Your task to perform on an android device: Toggle the flashlight Image 0: 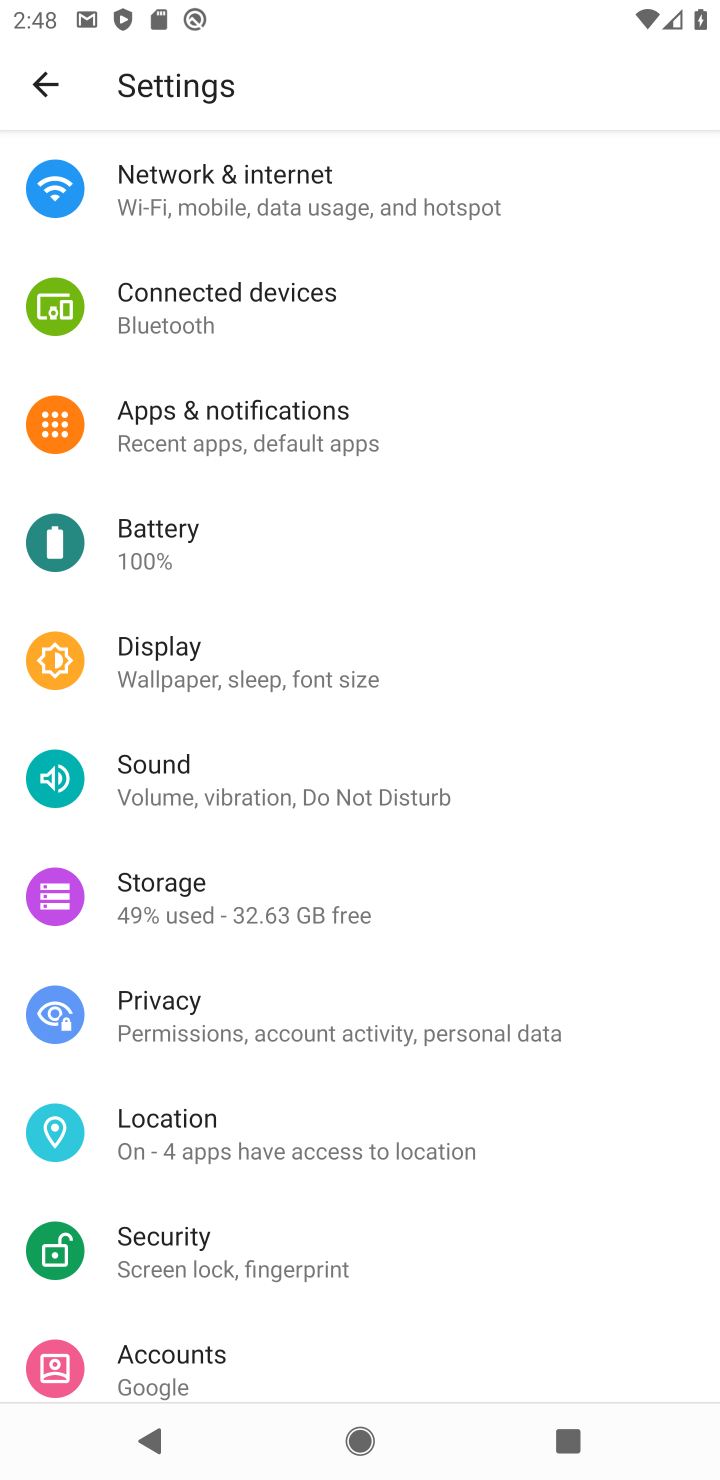
Step 0: press back button
Your task to perform on an android device: Toggle the flashlight Image 1: 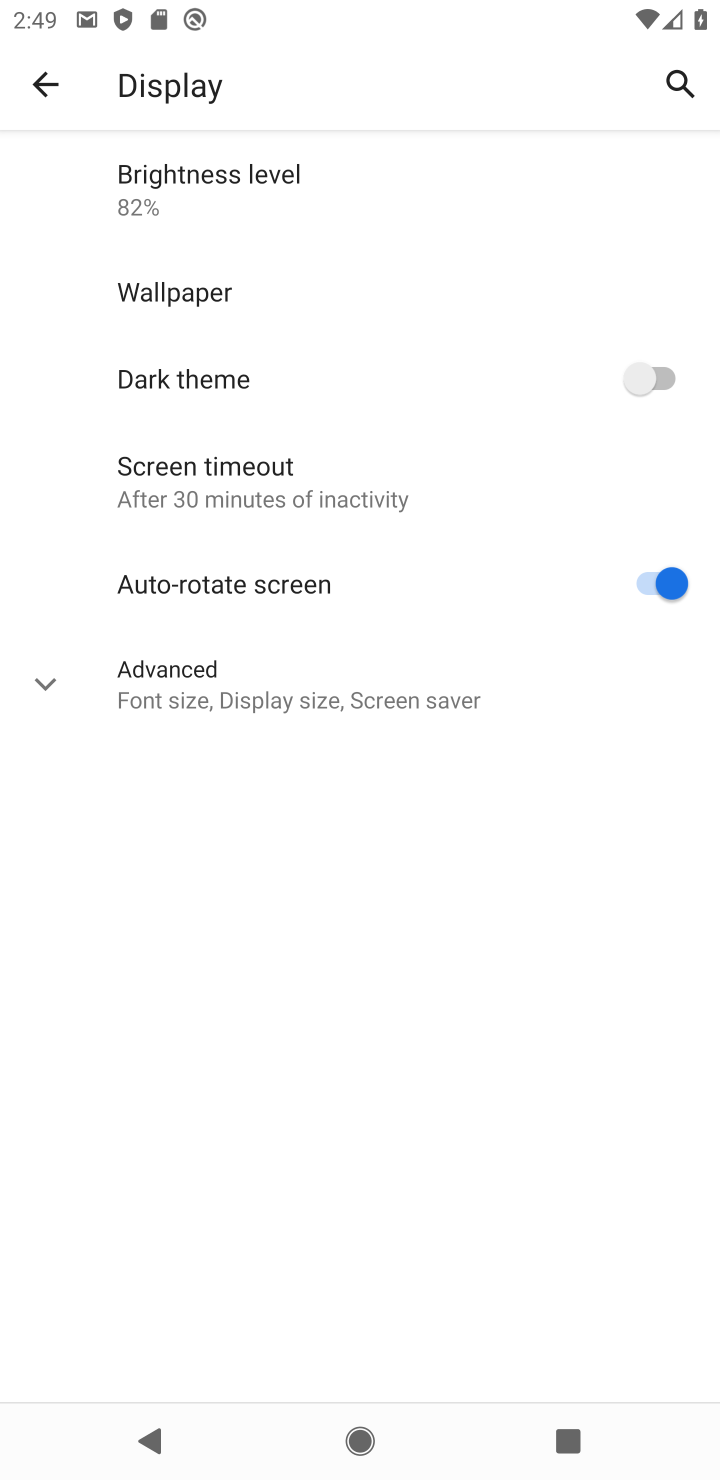
Step 1: click (42, 85)
Your task to perform on an android device: Toggle the flashlight Image 2: 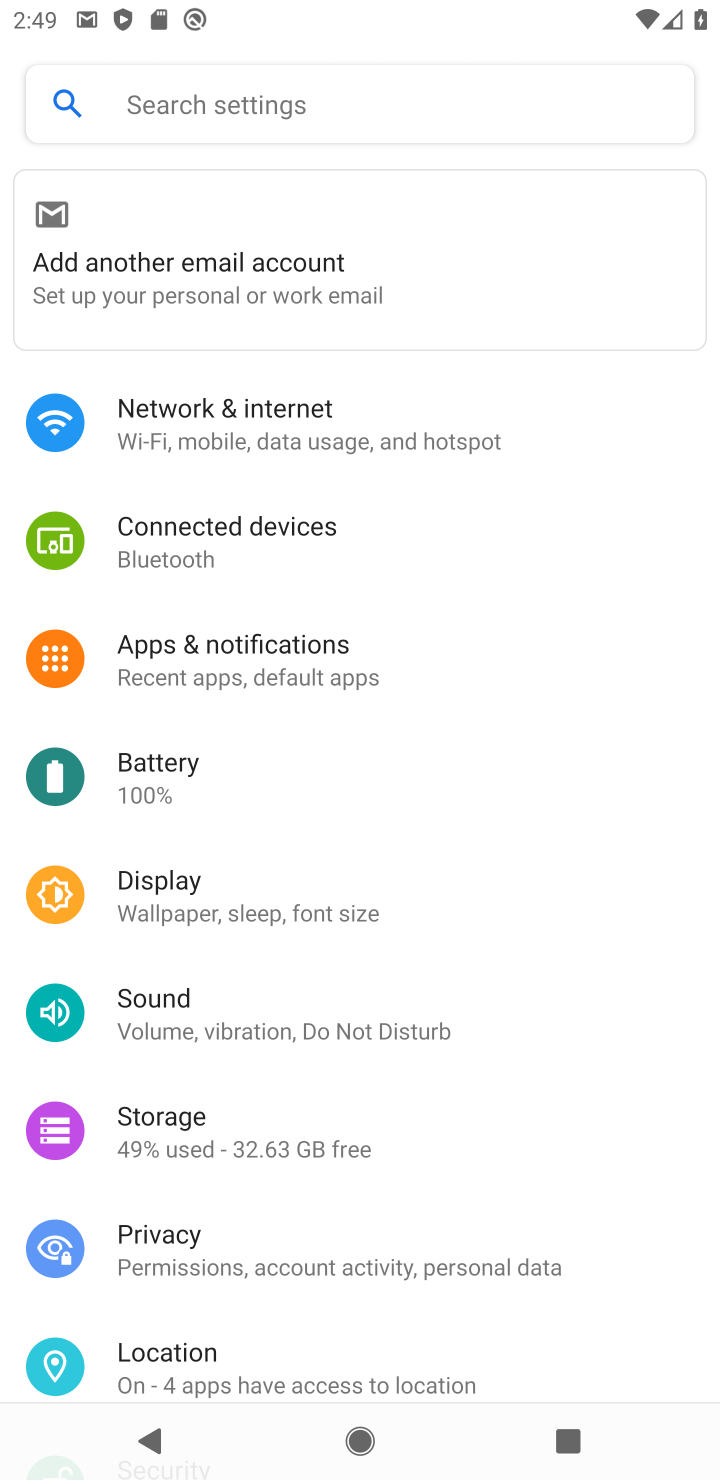
Step 2: task complete